Your task to perform on an android device: View the shopping cart on walmart. Image 0: 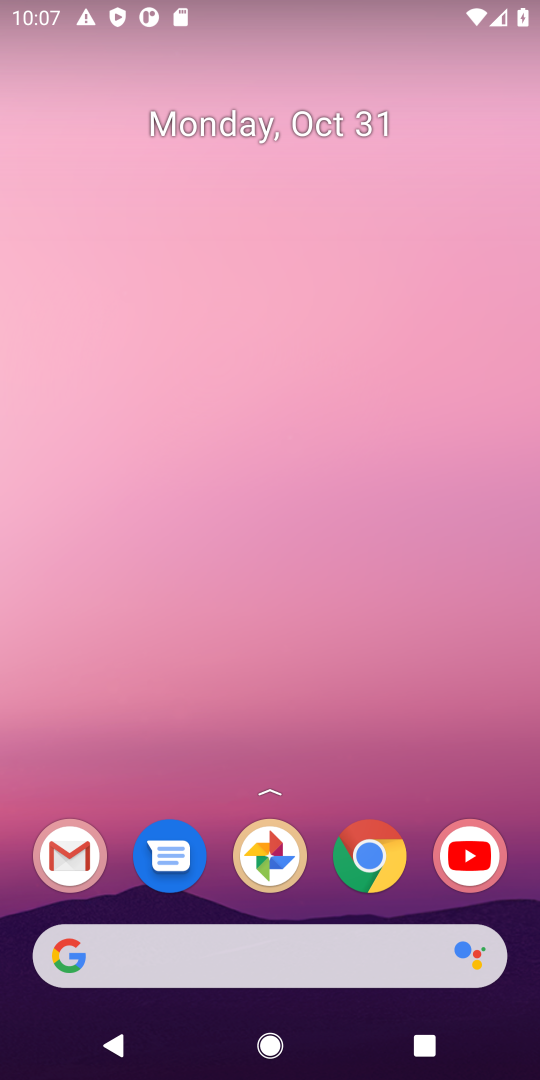
Step 0: click (138, 970)
Your task to perform on an android device: View the shopping cart on walmart. Image 1: 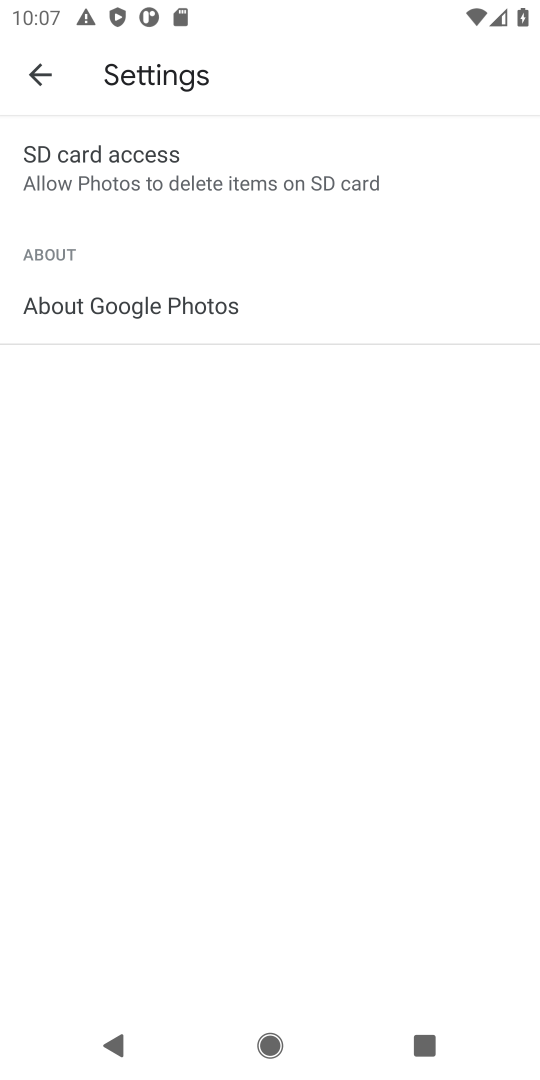
Step 1: type "walmart"
Your task to perform on an android device: View the shopping cart on walmart. Image 2: 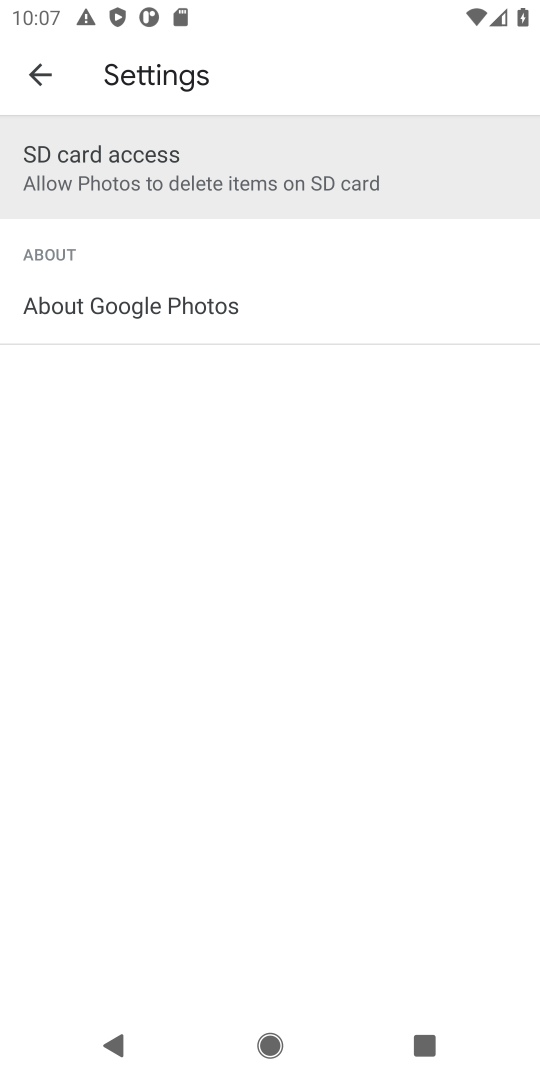
Step 2: press home button
Your task to perform on an android device: View the shopping cart on walmart. Image 3: 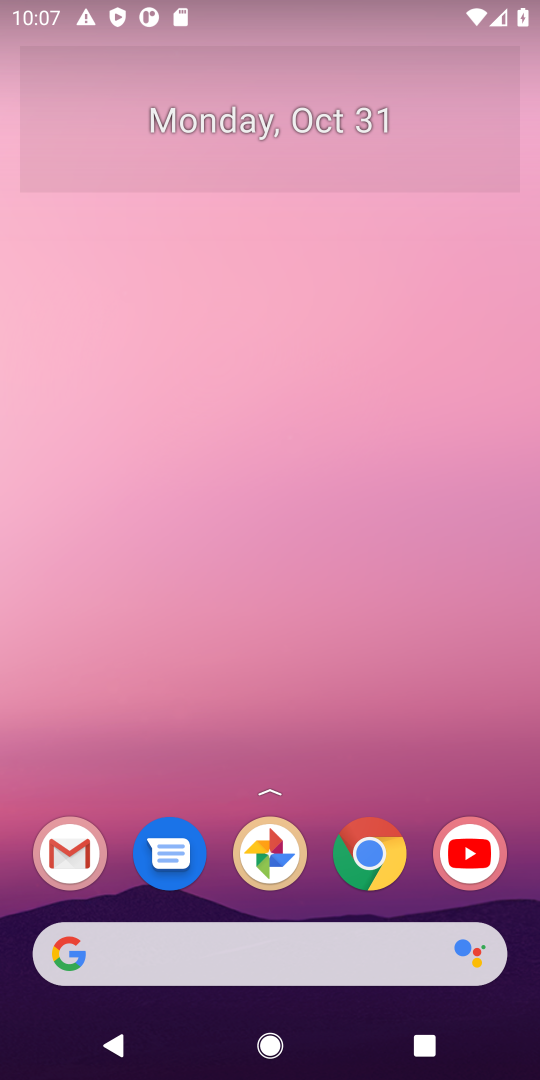
Step 3: click (317, 930)
Your task to perform on an android device: View the shopping cart on walmart. Image 4: 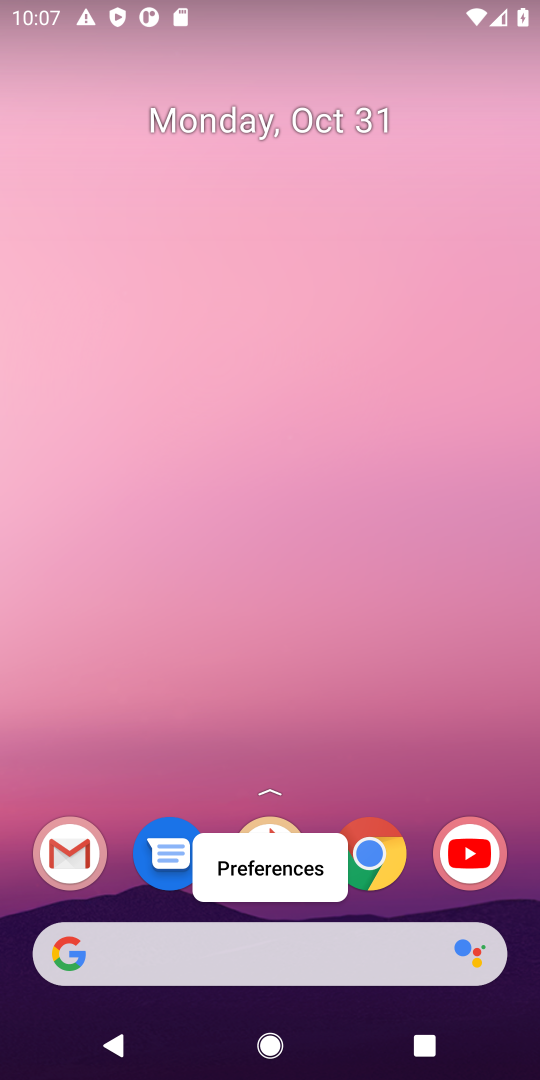
Step 4: click (205, 953)
Your task to perform on an android device: View the shopping cart on walmart. Image 5: 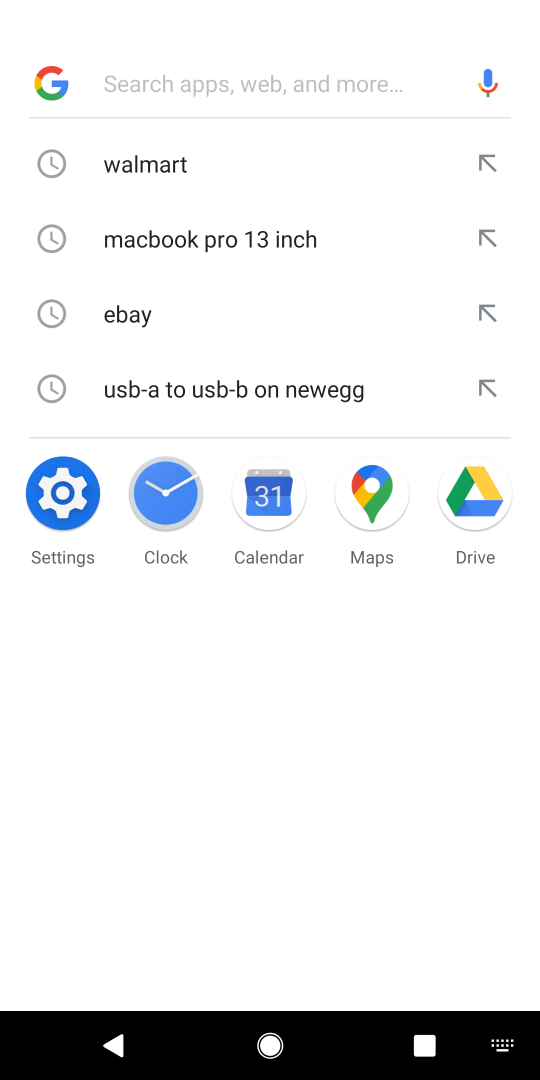
Step 5: click (180, 170)
Your task to perform on an android device: View the shopping cart on walmart. Image 6: 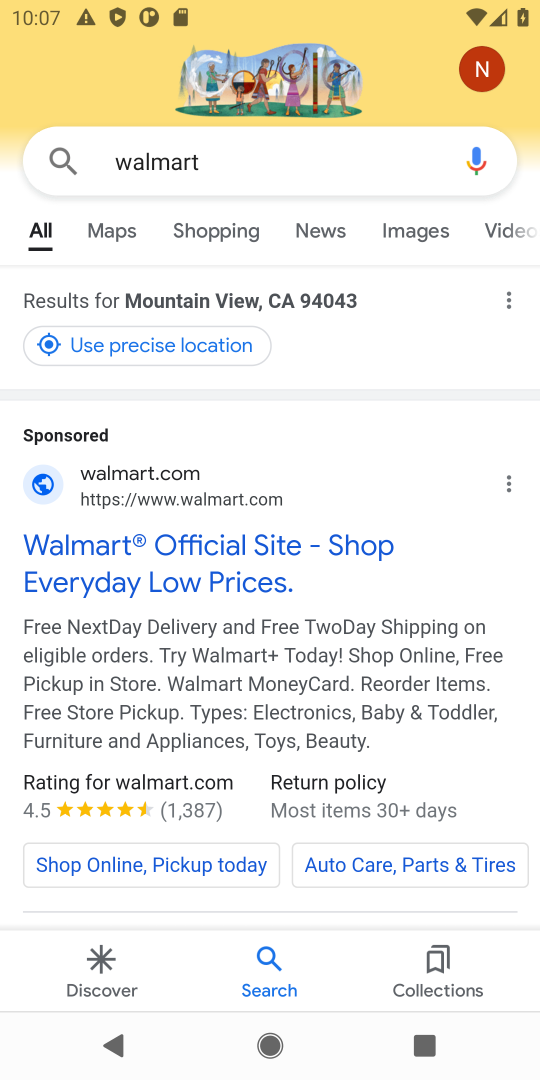
Step 6: click (161, 572)
Your task to perform on an android device: View the shopping cart on walmart. Image 7: 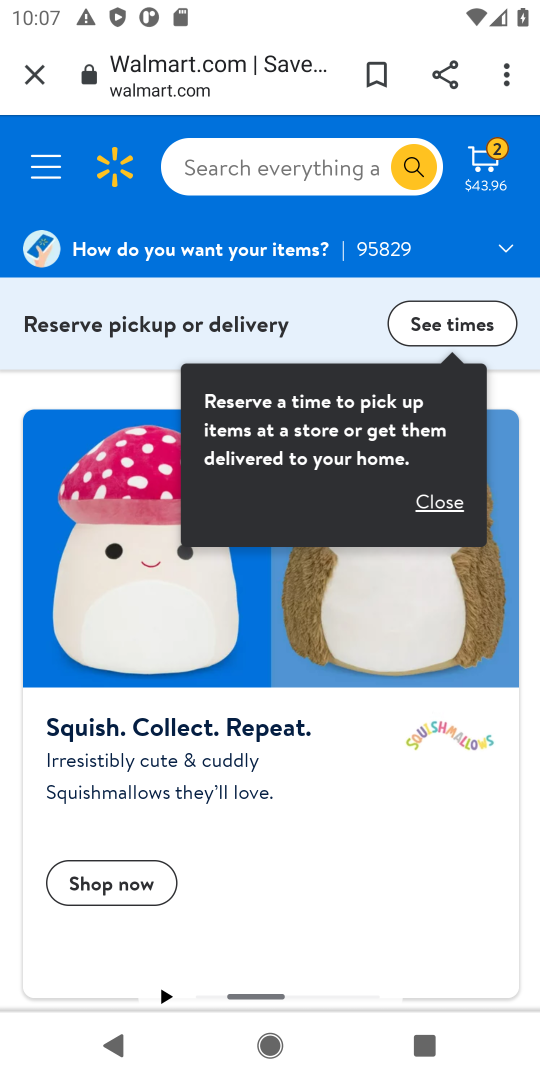
Step 7: click (487, 163)
Your task to perform on an android device: View the shopping cart on walmart. Image 8: 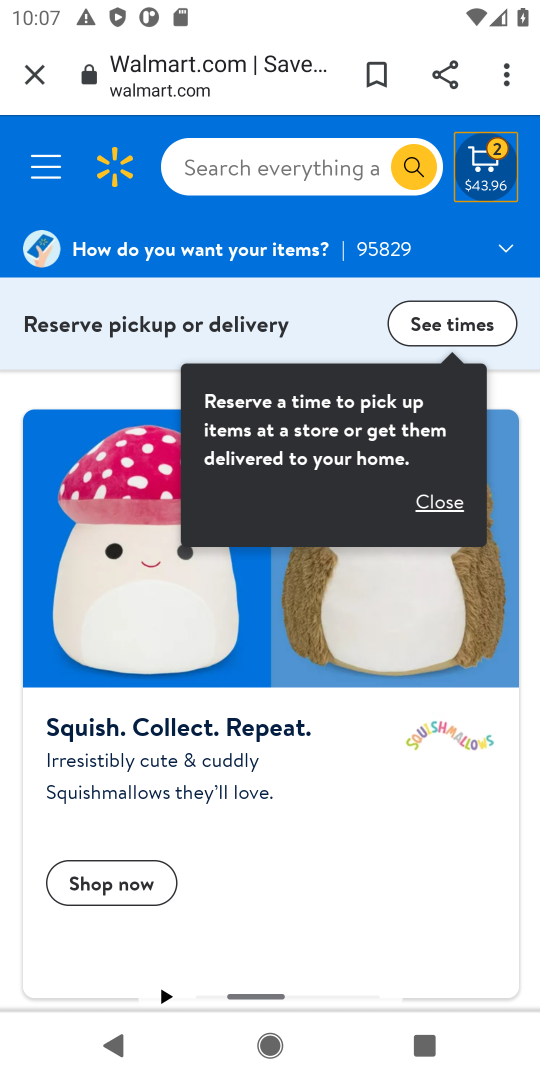
Step 8: click (499, 180)
Your task to perform on an android device: View the shopping cart on walmart. Image 9: 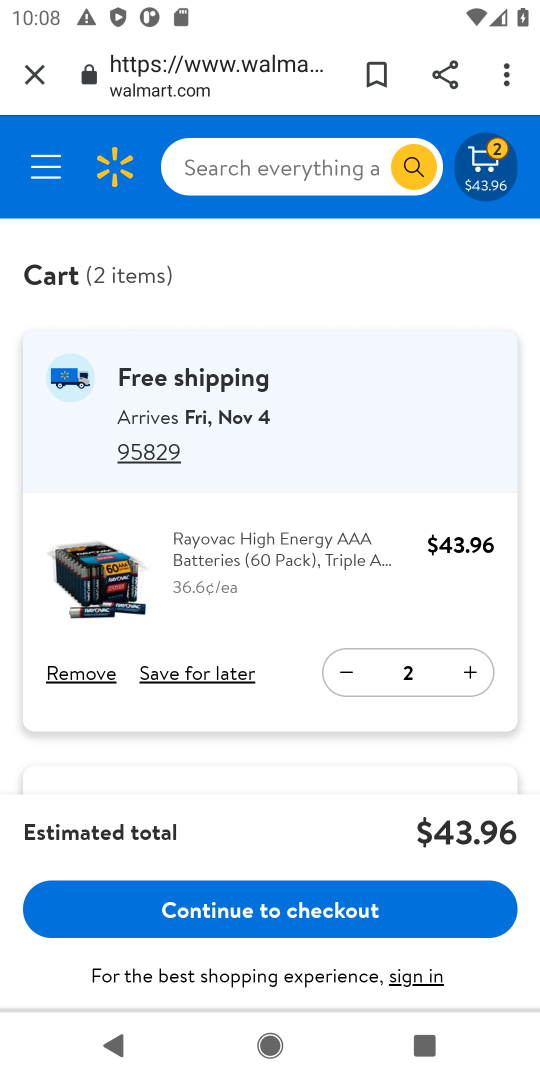
Step 9: task complete